Your task to perform on an android device: Find coffee shops on Maps Image 0: 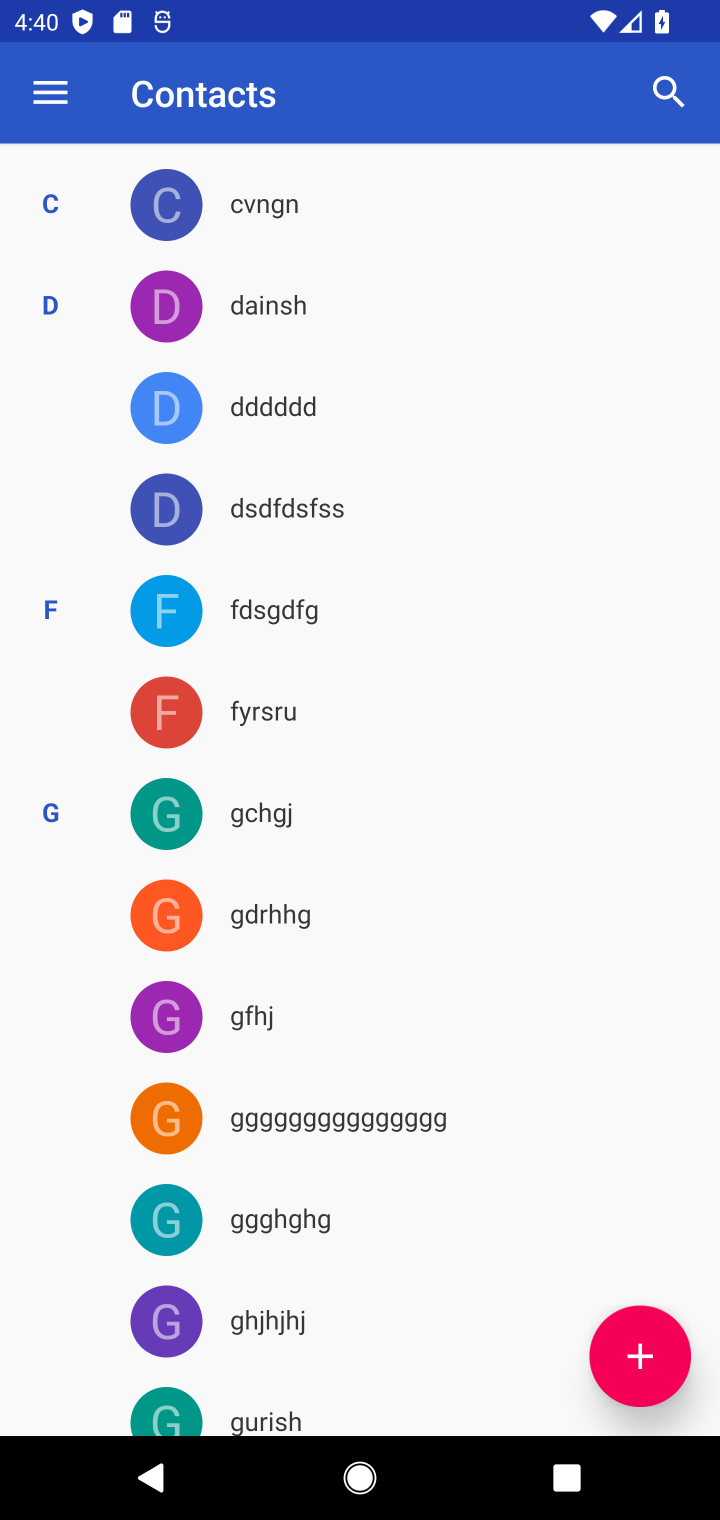
Step 0: press home button
Your task to perform on an android device: Find coffee shops on Maps Image 1: 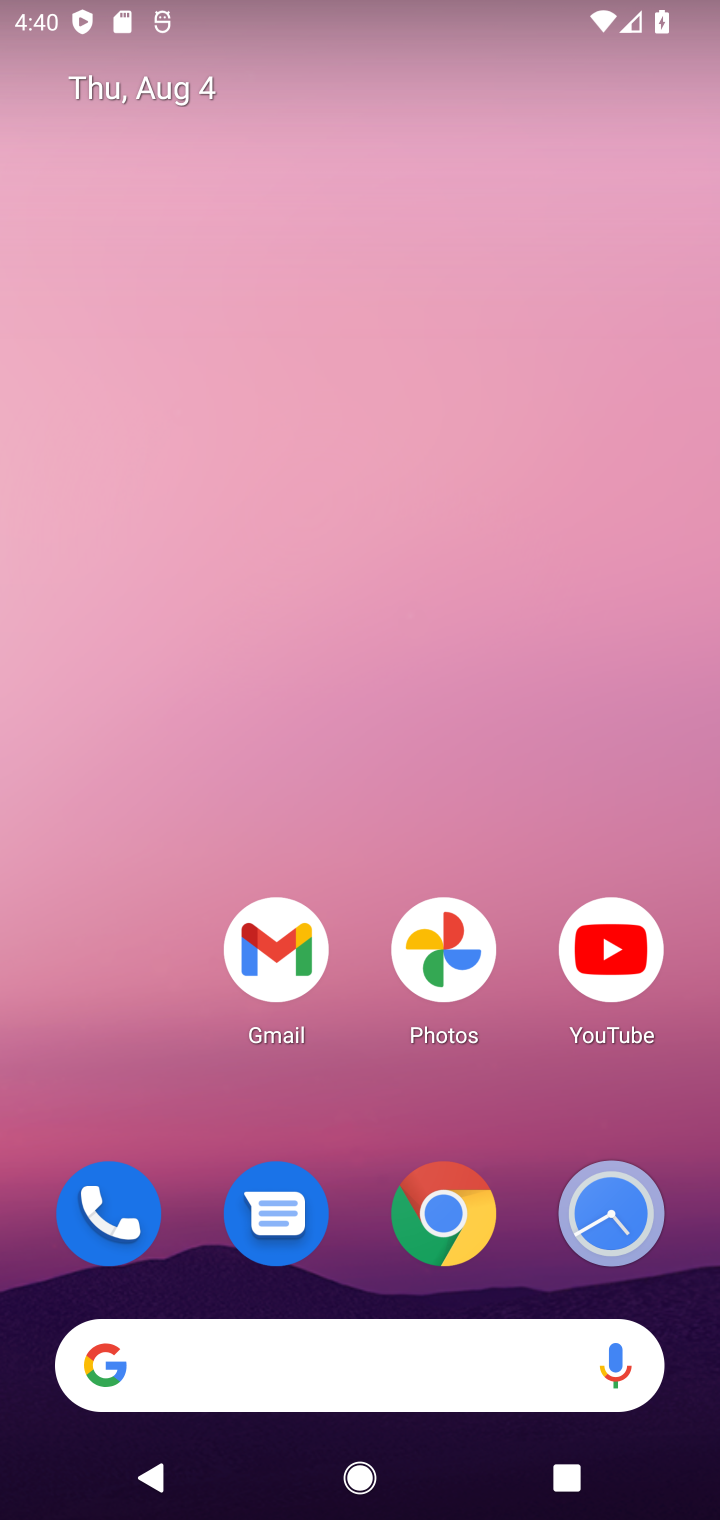
Step 1: drag from (354, 1334) to (248, 357)
Your task to perform on an android device: Find coffee shops on Maps Image 2: 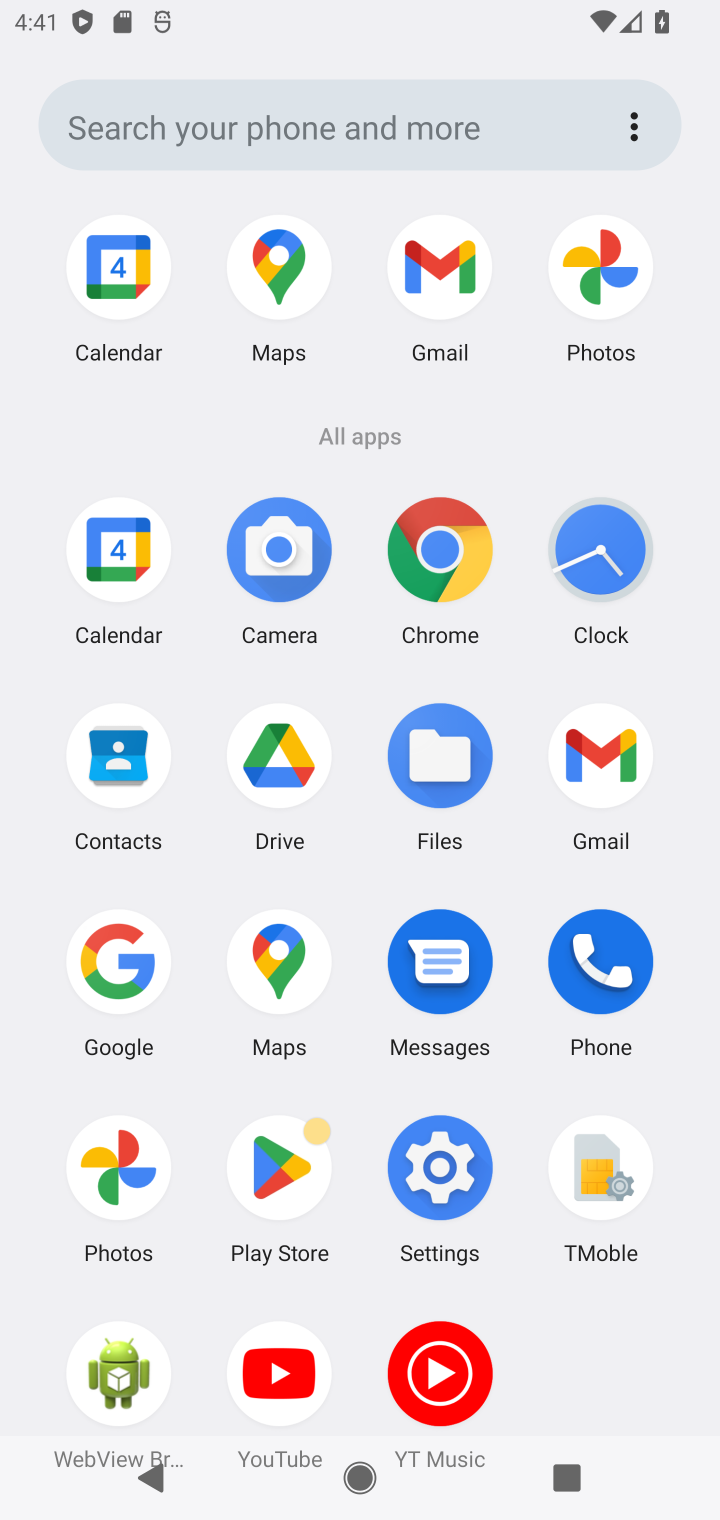
Step 2: click (279, 265)
Your task to perform on an android device: Find coffee shops on Maps Image 3: 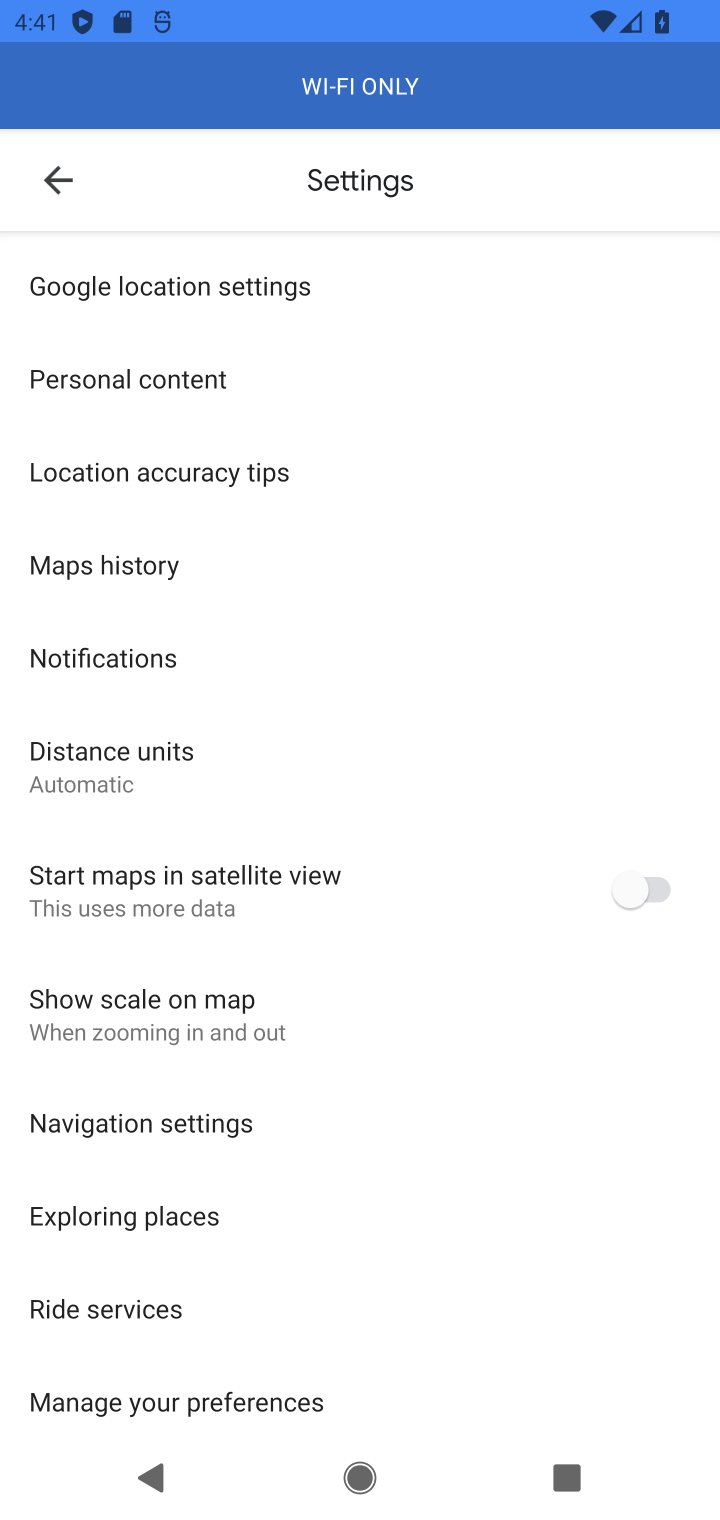
Step 3: press back button
Your task to perform on an android device: Find coffee shops on Maps Image 4: 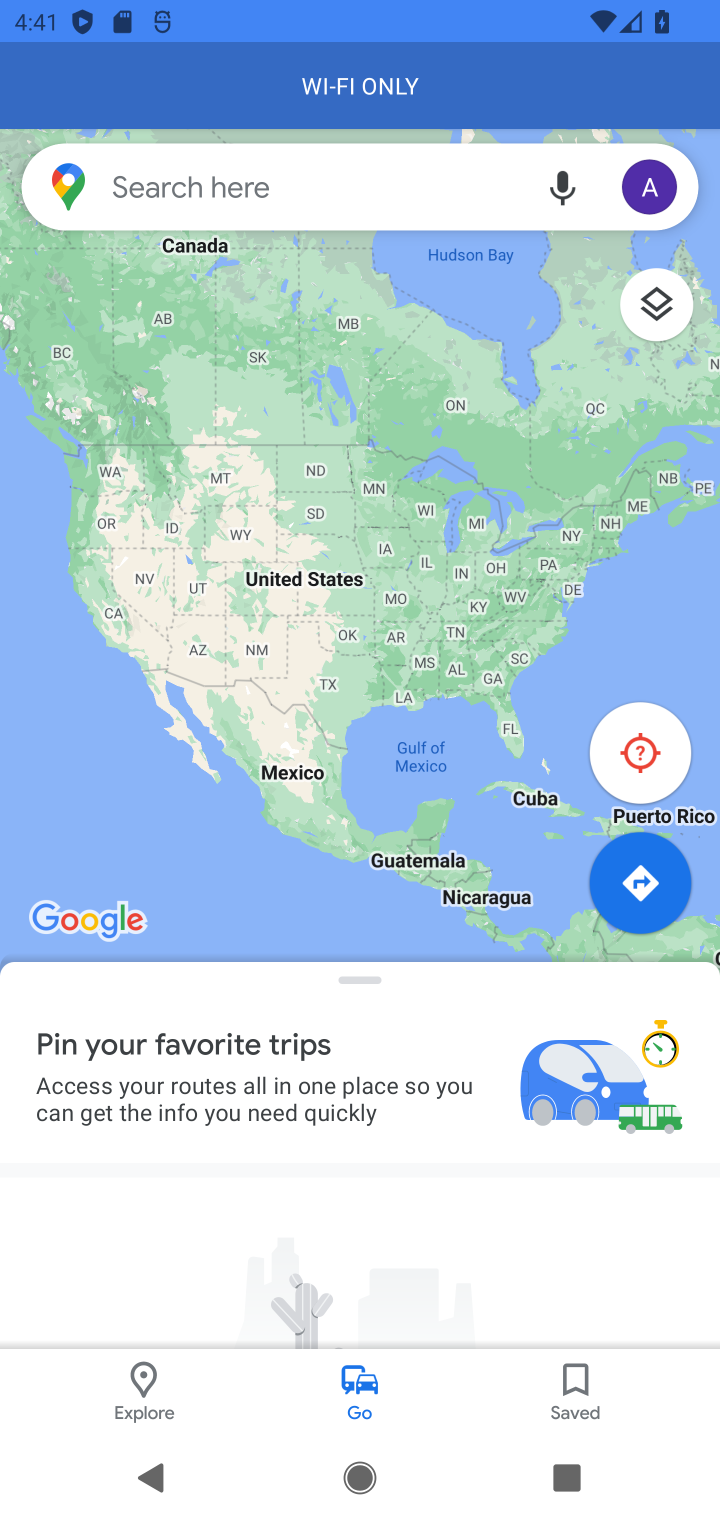
Step 4: click (325, 203)
Your task to perform on an android device: Find coffee shops on Maps Image 5: 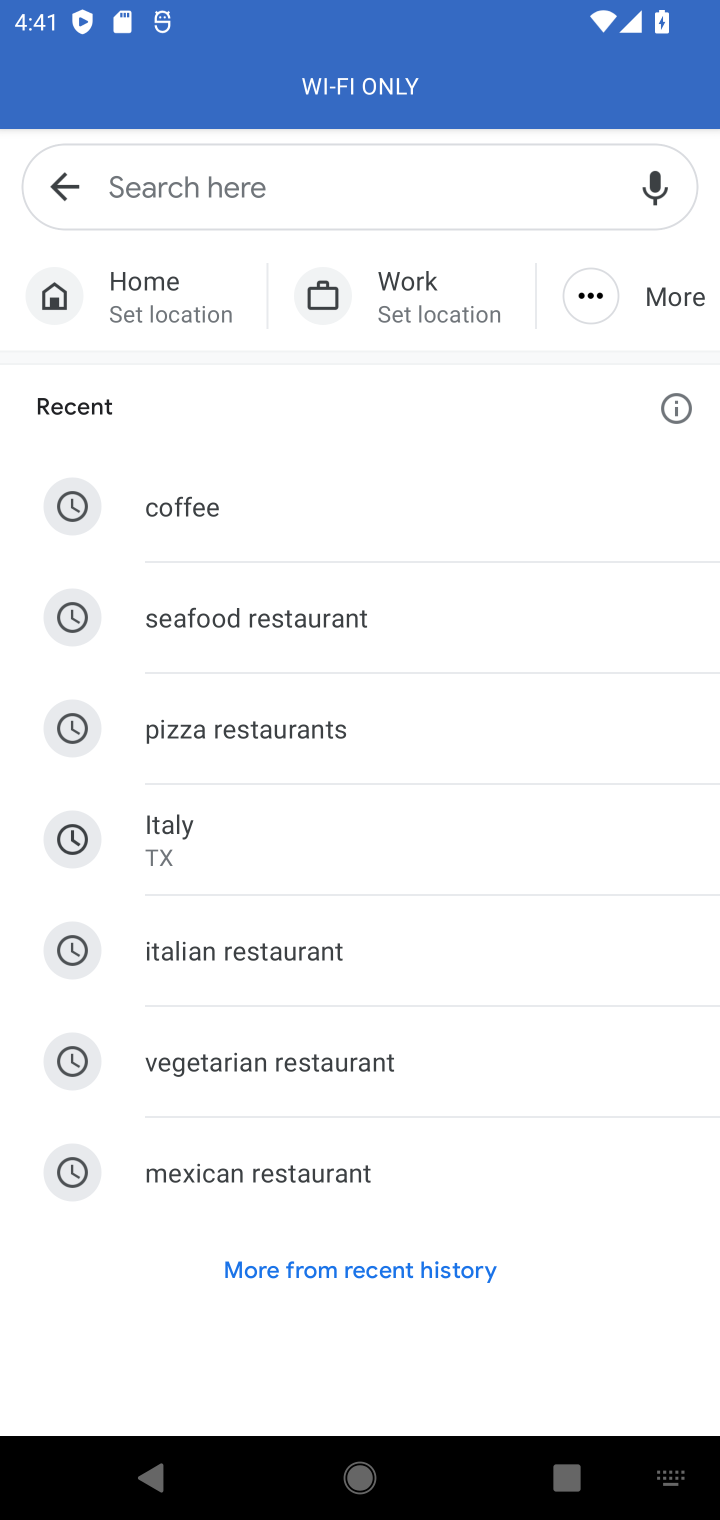
Step 5: type "coffee shops"
Your task to perform on an android device: Find coffee shops on Maps Image 6: 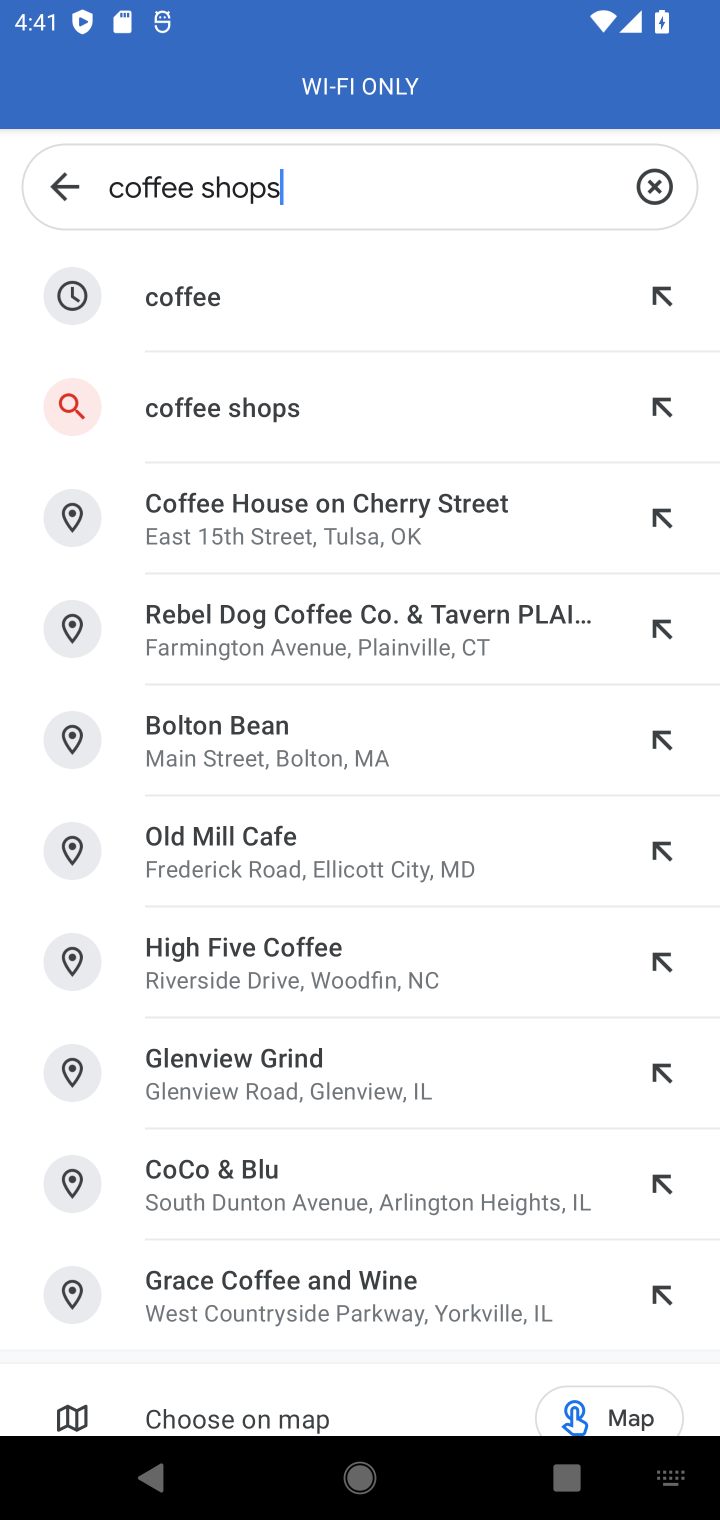
Step 6: click (287, 408)
Your task to perform on an android device: Find coffee shops on Maps Image 7: 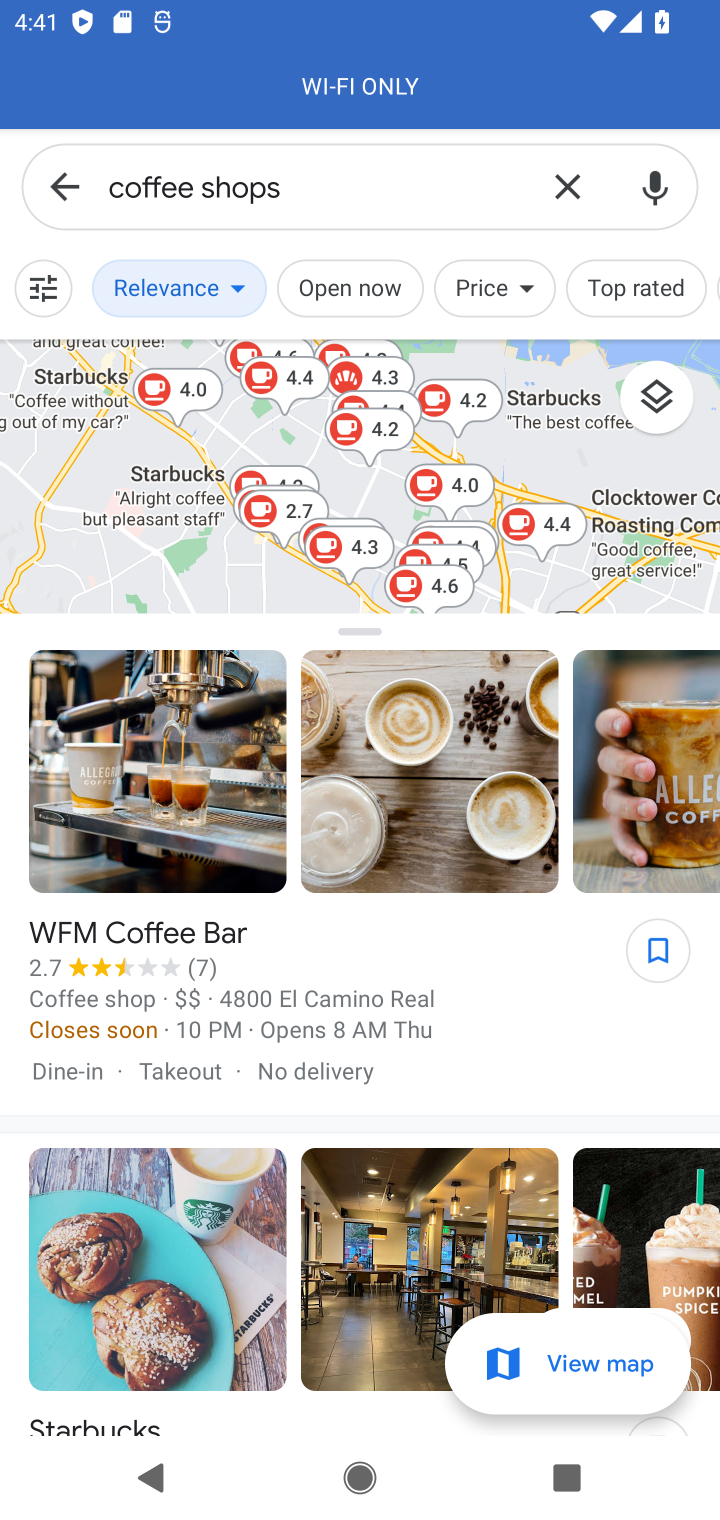
Step 7: task complete